Your task to perform on an android device: star an email in the gmail app Image 0: 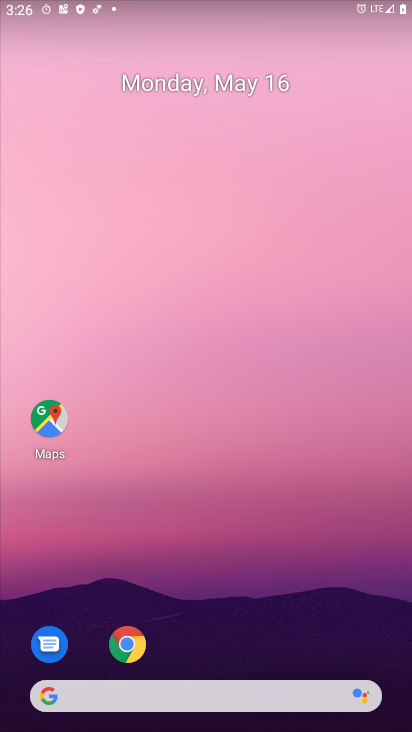
Step 0: drag from (229, 683) to (280, 172)
Your task to perform on an android device: star an email in the gmail app Image 1: 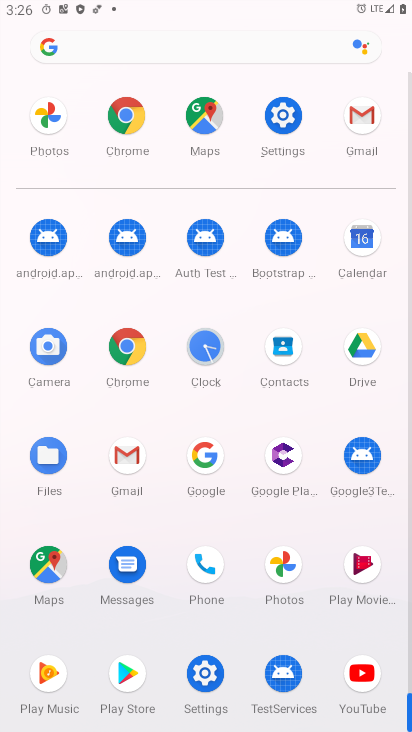
Step 1: click (138, 461)
Your task to perform on an android device: star an email in the gmail app Image 2: 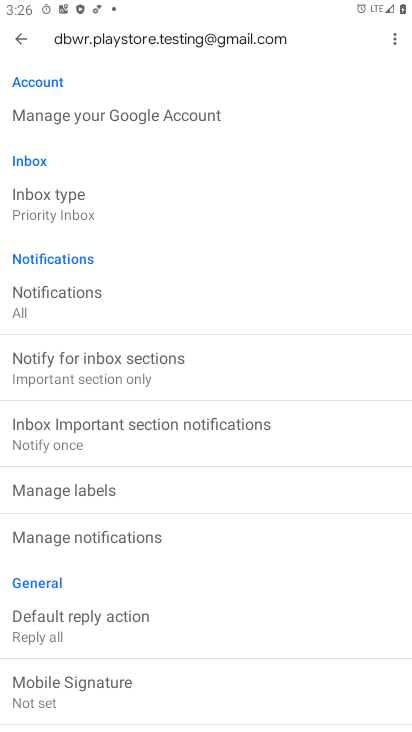
Step 2: click (25, 42)
Your task to perform on an android device: star an email in the gmail app Image 3: 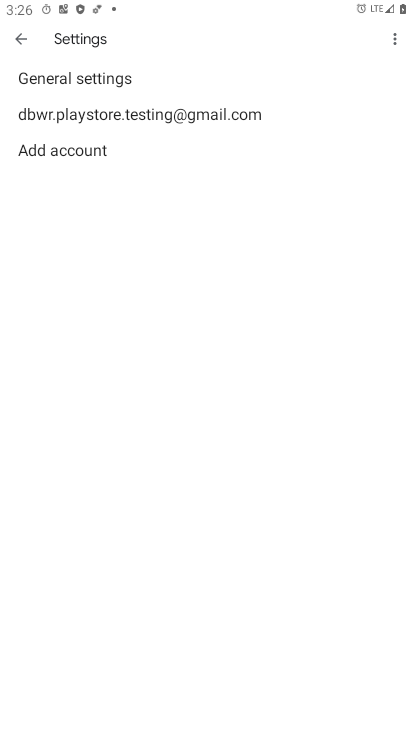
Step 3: click (26, 45)
Your task to perform on an android device: star an email in the gmail app Image 4: 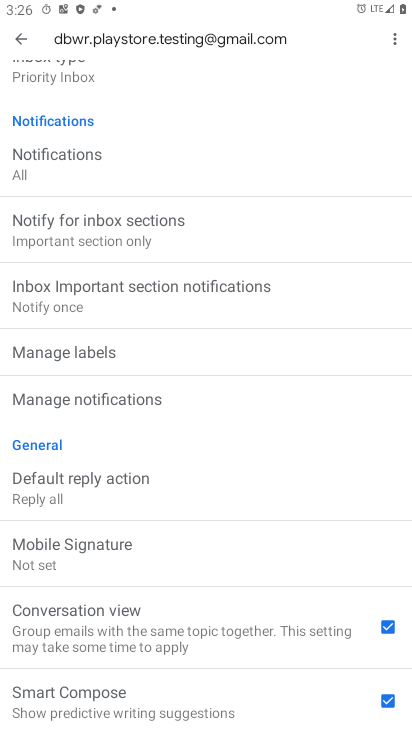
Step 4: drag from (120, 269) to (104, 547)
Your task to perform on an android device: star an email in the gmail app Image 5: 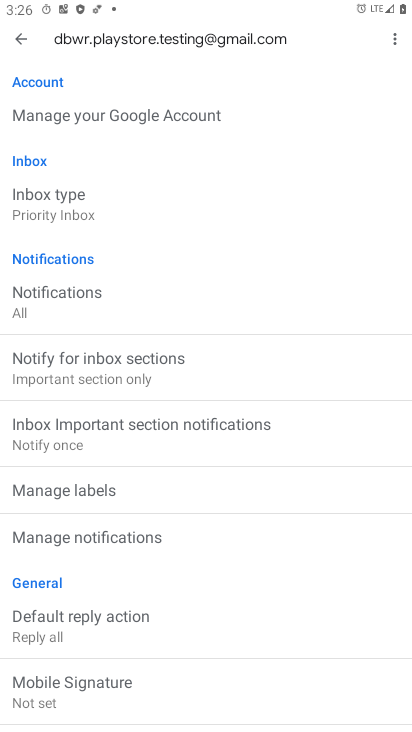
Step 5: drag from (222, 553) to (211, 198)
Your task to perform on an android device: star an email in the gmail app Image 6: 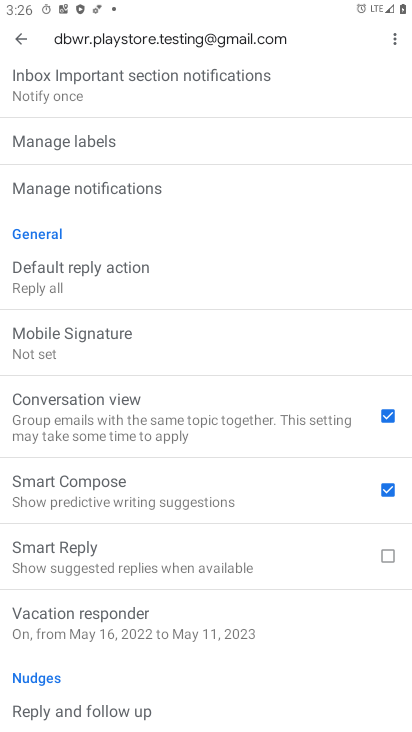
Step 6: drag from (211, 531) to (206, 244)
Your task to perform on an android device: star an email in the gmail app Image 7: 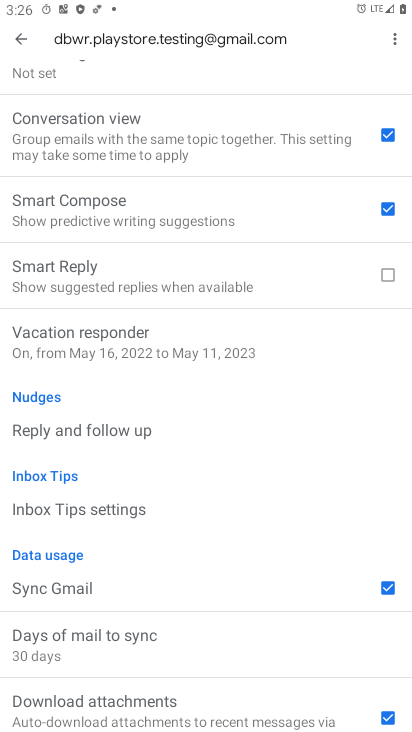
Step 7: drag from (42, 158) to (34, 193)
Your task to perform on an android device: star an email in the gmail app Image 8: 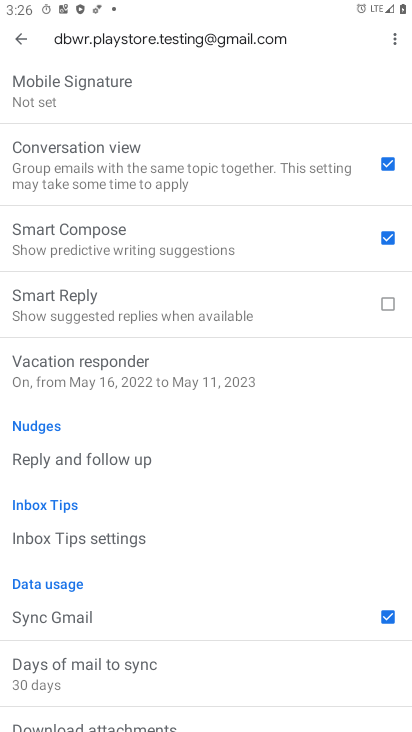
Step 8: click (17, 48)
Your task to perform on an android device: star an email in the gmail app Image 9: 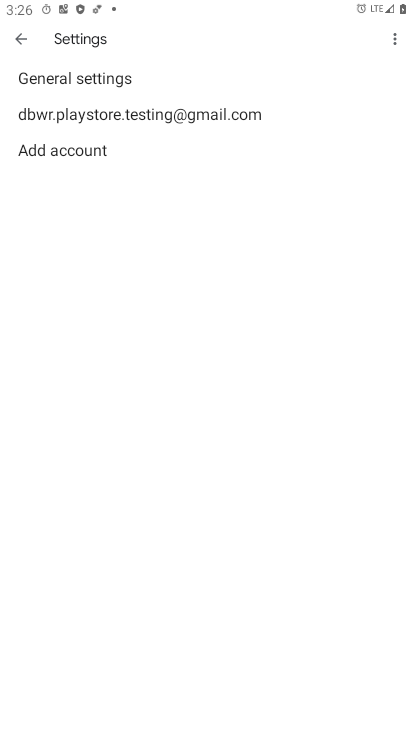
Step 9: click (22, 36)
Your task to perform on an android device: star an email in the gmail app Image 10: 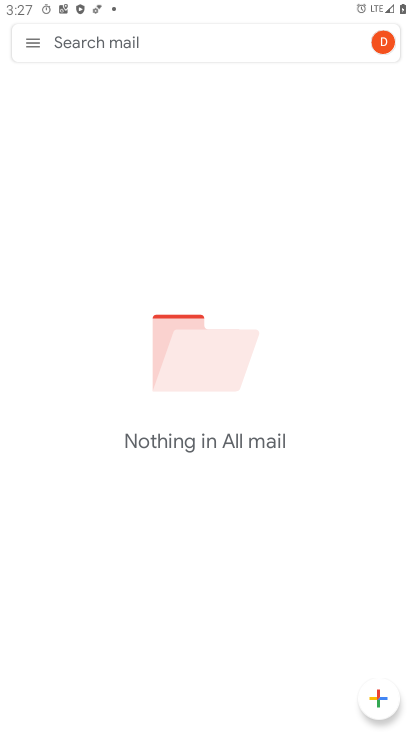
Step 10: task complete